Your task to perform on an android device: What's the weather going to be tomorrow? Image 0: 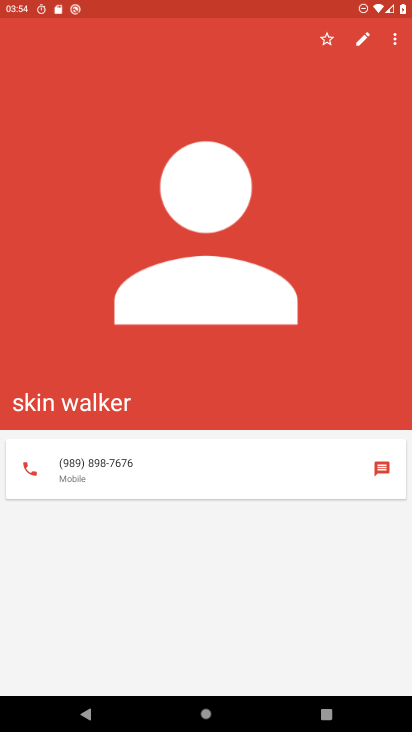
Step 0: press home button
Your task to perform on an android device: What's the weather going to be tomorrow? Image 1: 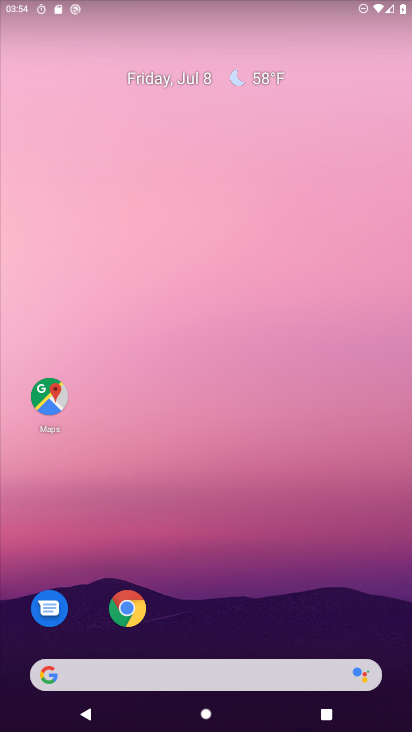
Step 1: drag from (235, 718) to (216, 211)
Your task to perform on an android device: What's the weather going to be tomorrow? Image 2: 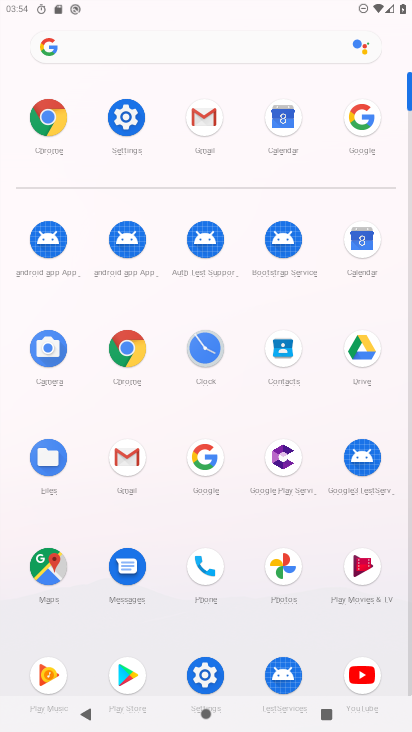
Step 2: click (203, 450)
Your task to perform on an android device: What's the weather going to be tomorrow? Image 3: 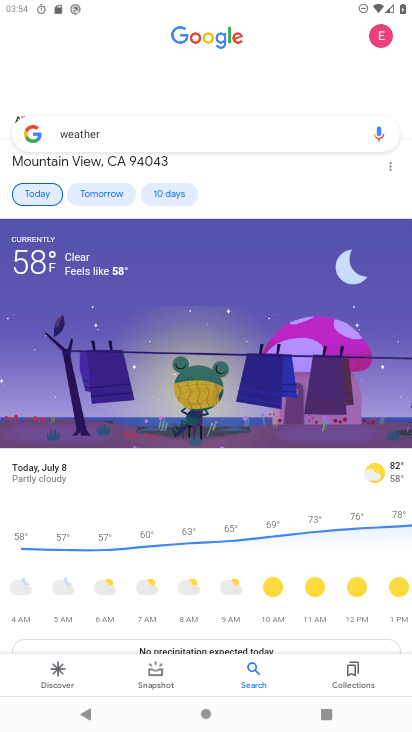
Step 3: click (104, 192)
Your task to perform on an android device: What's the weather going to be tomorrow? Image 4: 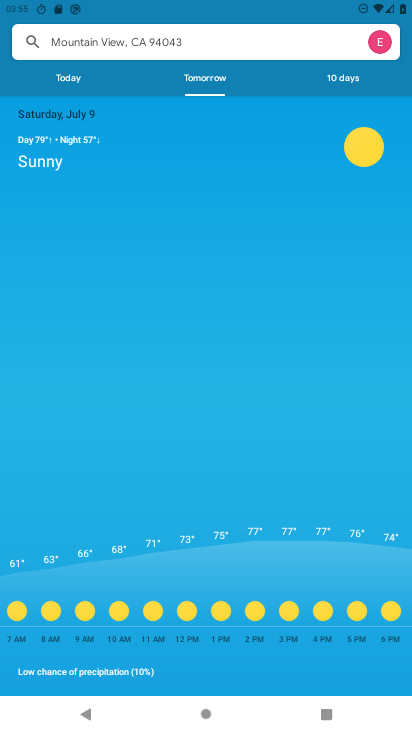
Step 4: task complete